Your task to perform on an android device: manage bookmarks in the chrome app Image 0: 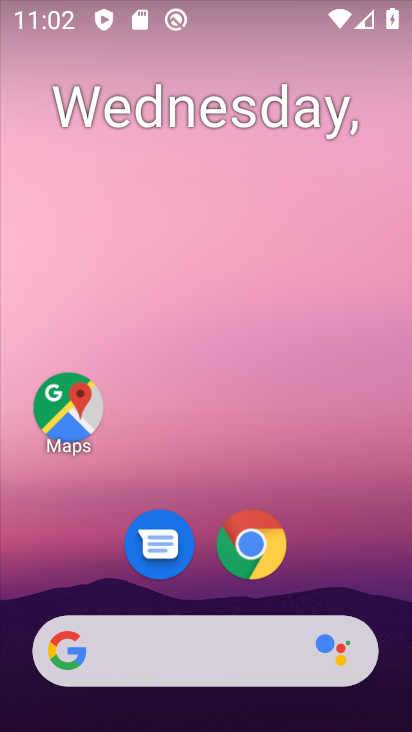
Step 0: click (238, 561)
Your task to perform on an android device: manage bookmarks in the chrome app Image 1: 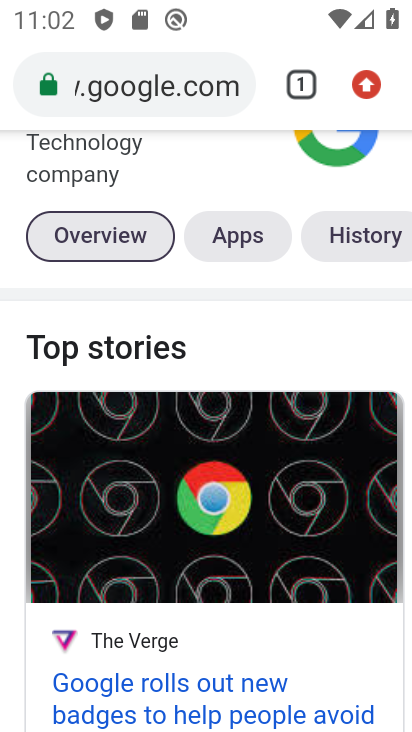
Step 1: click (369, 82)
Your task to perform on an android device: manage bookmarks in the chrome app Image 2: 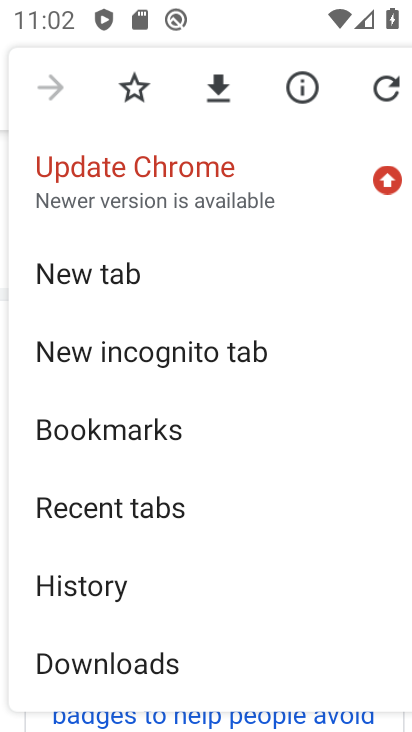
Step 2: click (129, 434)
Your task to perform on an android device: manage bookmarks in the chrome app Image 3: 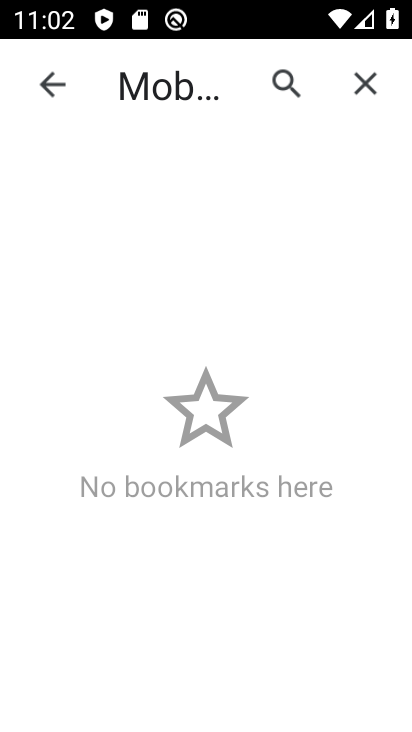
Step 3: task complete